Your task to perform on an android device: Open the phone app and click the voicemail tab. Image 0: 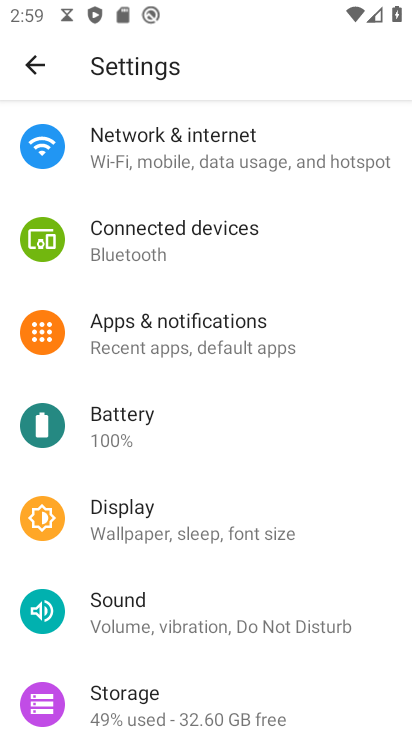
Step 0: press home button
Your task to perform on an android device: Open the phone app and click the voicemail tab. Image 1: 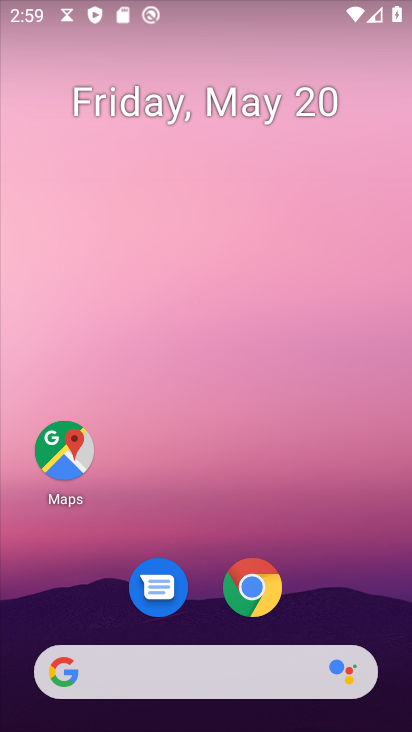
Step 1: drag from (370, 622) to (260, 42)
Your task to perform on an android device: Open the phone app and click the voicemail tab. Image 2: 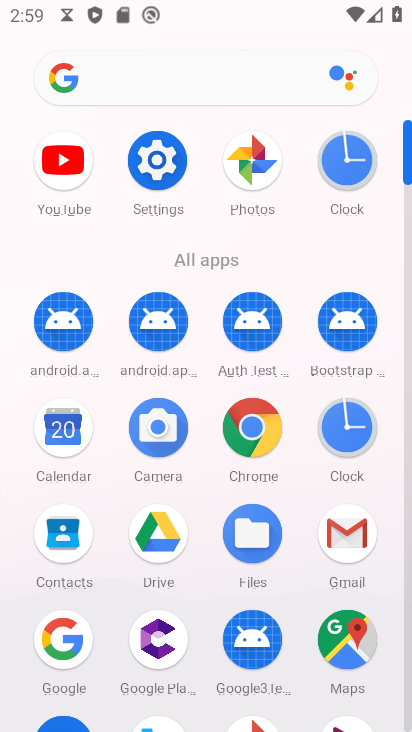
Step 2: click (406, 683)
Your task to perform on an android device: Open the phone app and click the voicemail tab. Image 3: 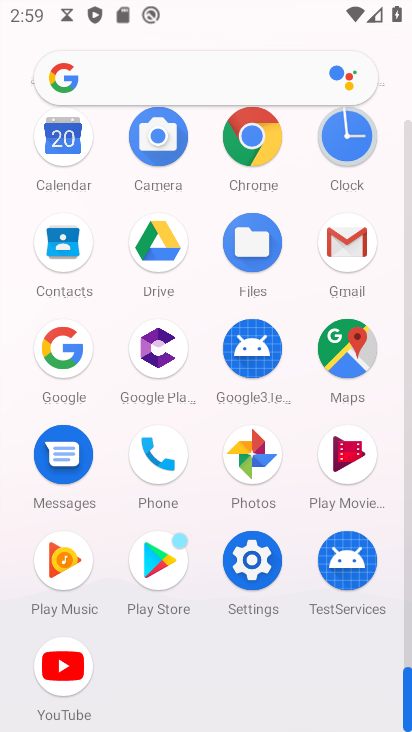
Step 3: click (157, 464)
Your task to perform on an android device: Open the phone app and click the voicemail tab. Image 4: 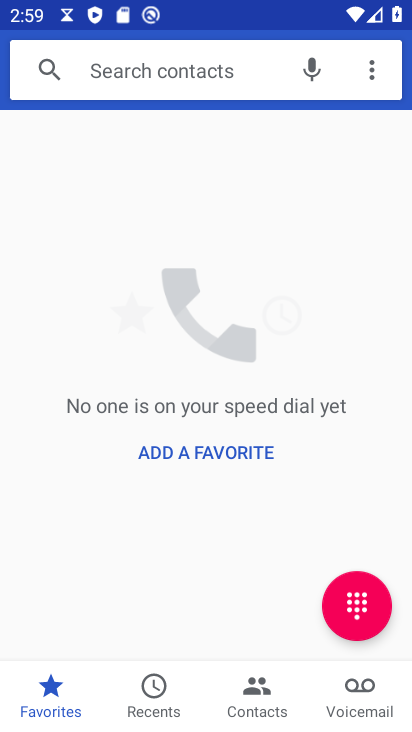
Step 4: click (365, 697)
Your task to perform on an android device: Open the phone app and click the voicemail tab. Image 5: 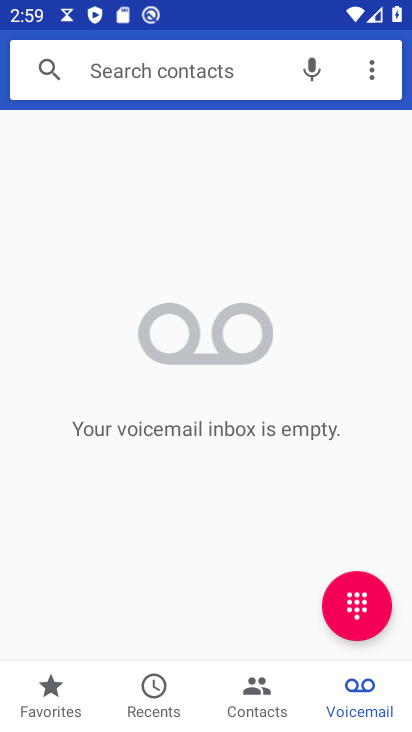
Step 5: task complete